Your task to perform on an android device: Go to ESPN.com Image 0: 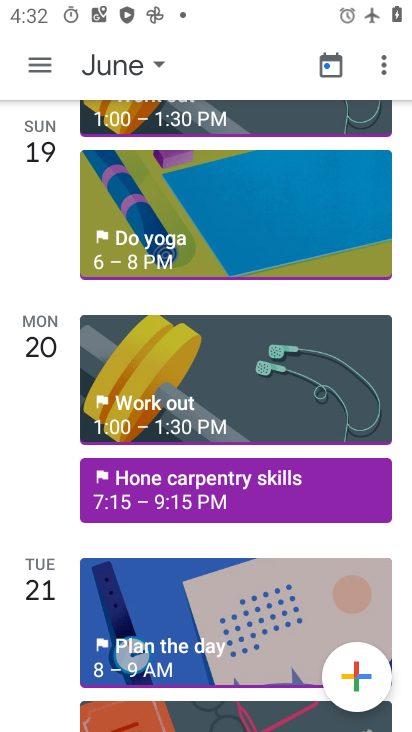
Step 0: press home button
Your task to perform on an android device: Go to ESPN.com Image 1: 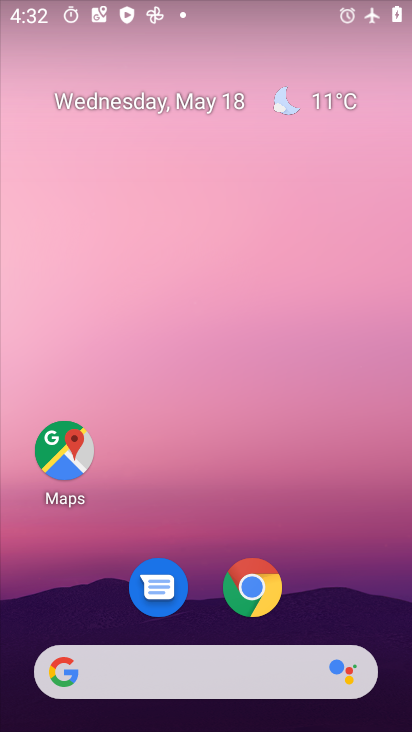
Step 1: drag from (312, 610) to (379, 190)
Your task to perform on an android device: Go to ESPN.com Image 2: 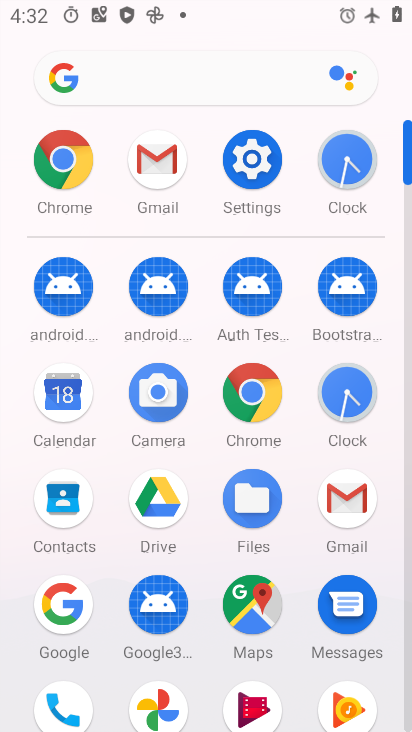
Step 2: click (78, 186)
Your task to perform on an android device: Go to ESPN.com Image 3: 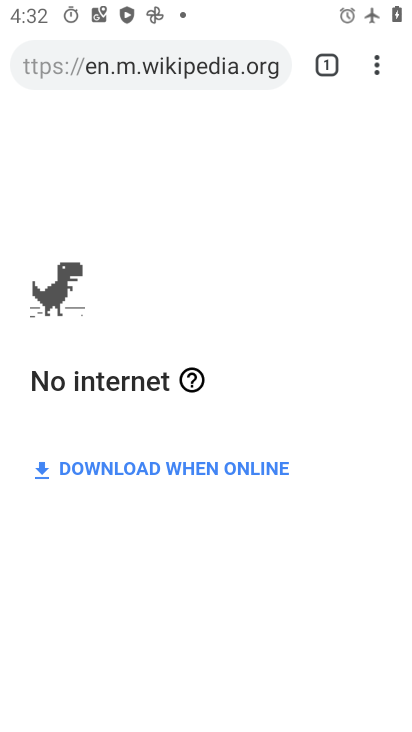
Step 3: click (157, 81)
Your task to perform on an android device: Go to ESPN.com Image 4: 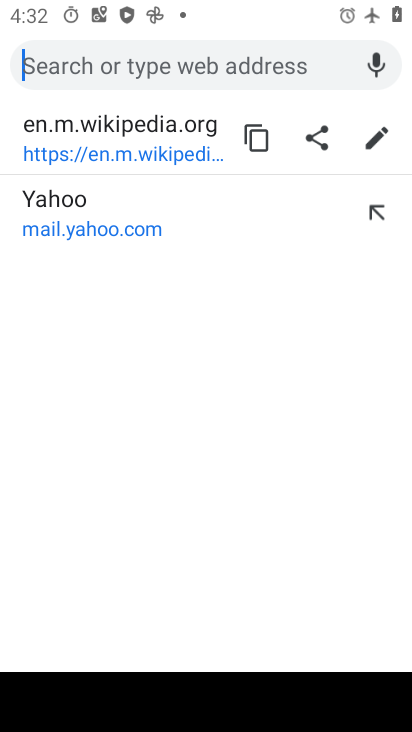
Step 4: type "espn"
Your task to perform on an android device: Go to ESPN.com Image 5: 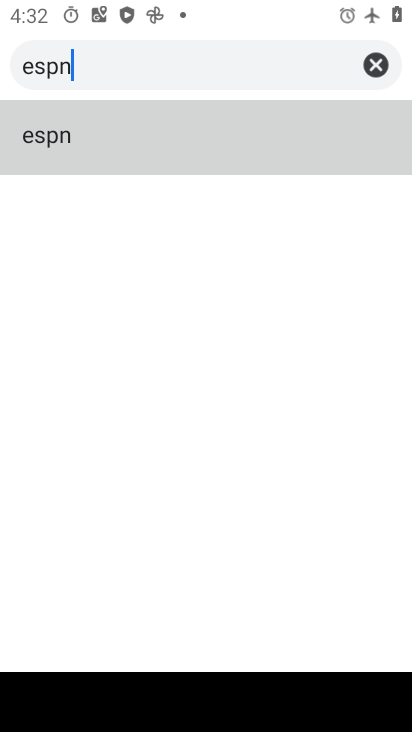
Step 5: click (146, 143)
Your task to perform on an android device: Go to ESPN.com Image 6: 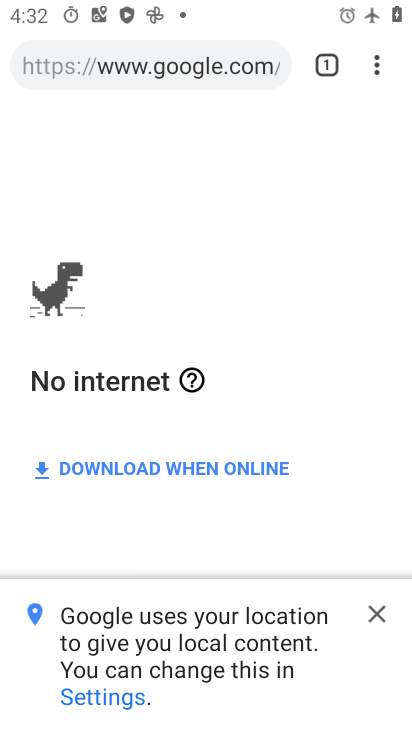
Step 6: task complete